Your task to perform on an android device: see sites visited before in the chrome app Image 0: 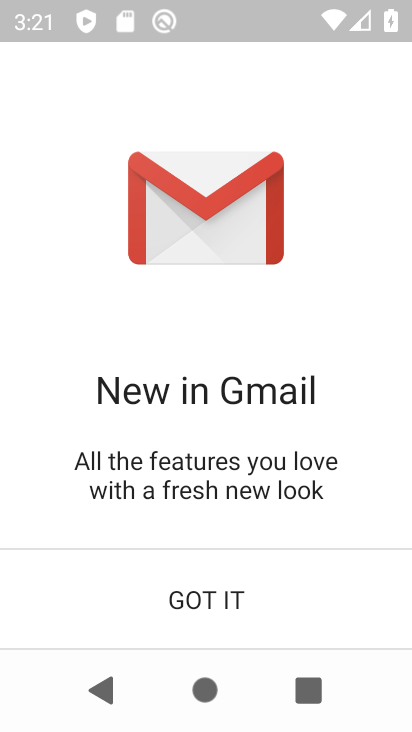
Step 0: press home button
Your task to perform on an android device: see sites visited before in the chrome app Image 1: 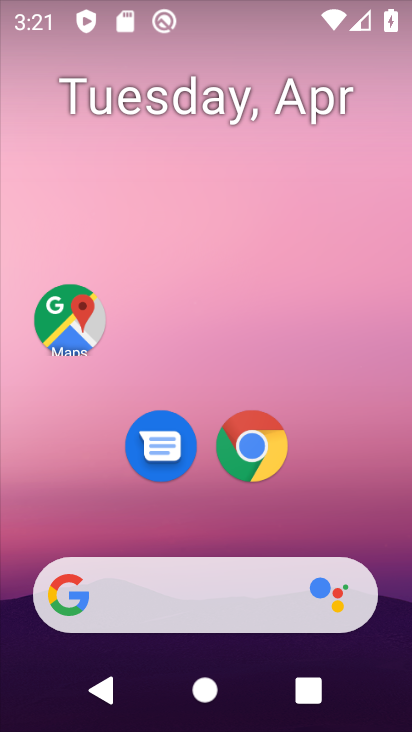
Step 1: drag from (272, 518) to (254, 35)
Your task to perform on an android device: see sites visited before in the chrome app Image 2: 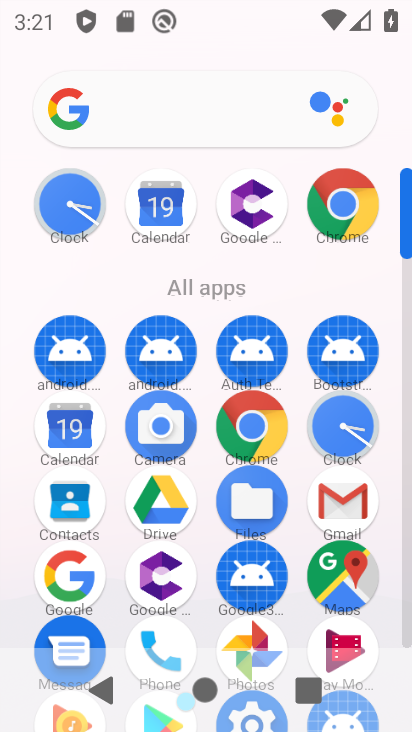
Step 2: click (250, 420)
Your task to perform on an android device: see sites visited before in the chrome app Image 3: 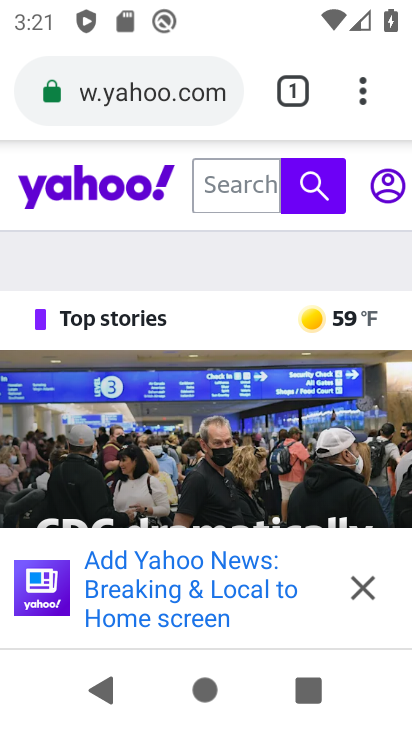
Step 3: drag from (359, 97) to (95, 468)
Your task to perform on an android device: see sites visited before in the chrome app Image 4: 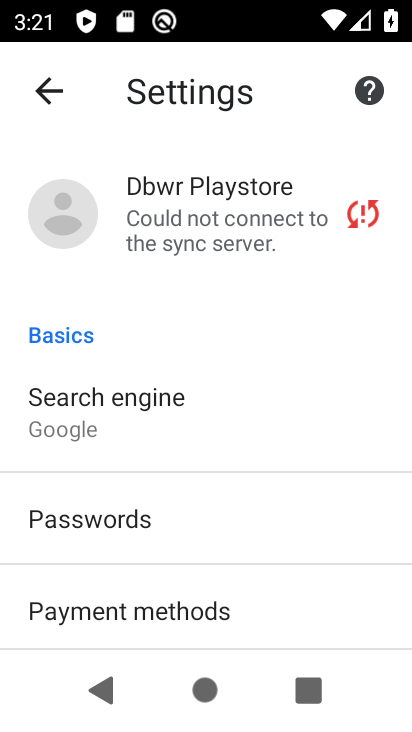
Step 4: drag from (271, 574) to (240, 329)
Your task to perform on an android device: see sites visited before in the chrome app Image 5: 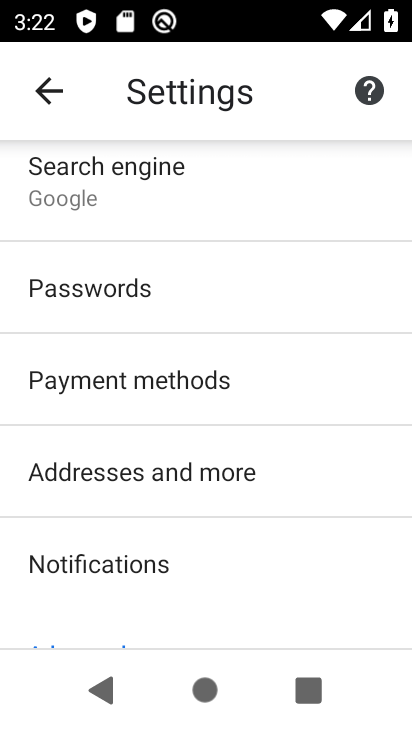
Step 5: drag from (321, 568) to (350, 293)
Your task to perform on an android device: see sites visited before in the chrome app Image 6: 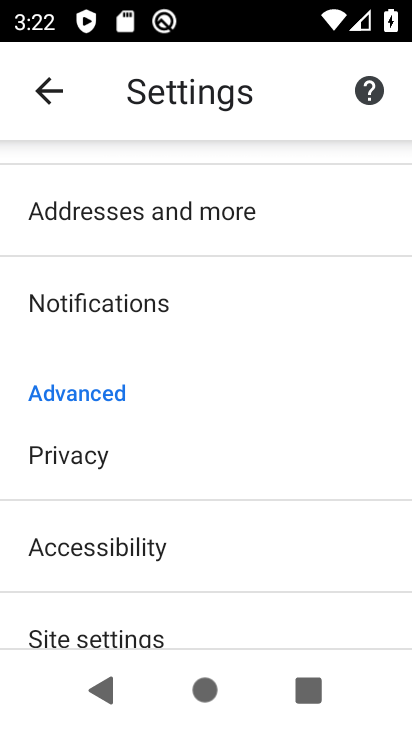
Step 6: click (123, 625)
Your task to perform on an android device: see sites visited before in the chrome app Image 7: 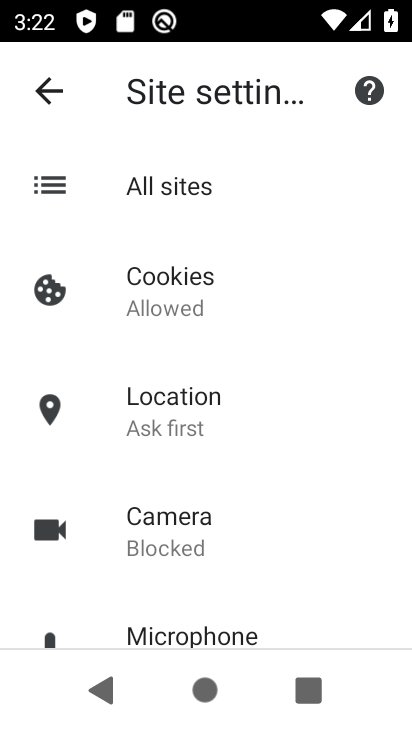
Step 7: click (200, 188)
Your task to perform on an android device: see sites visited before in the chrome app Image 8: 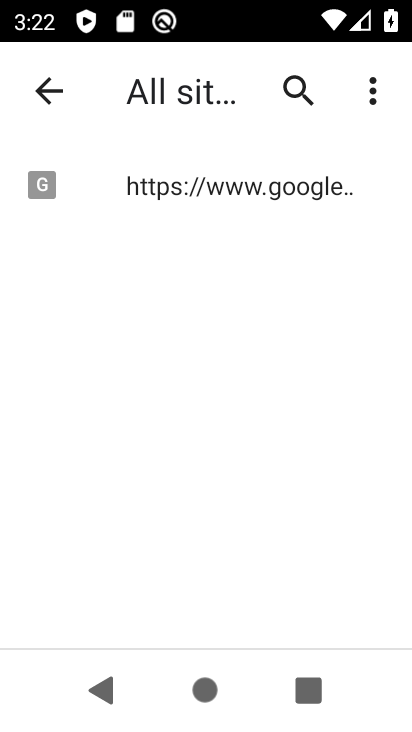
Step 8: click (239, 186)
Your task to perform on an android device: see sites visited before in the chrome app Image 9: 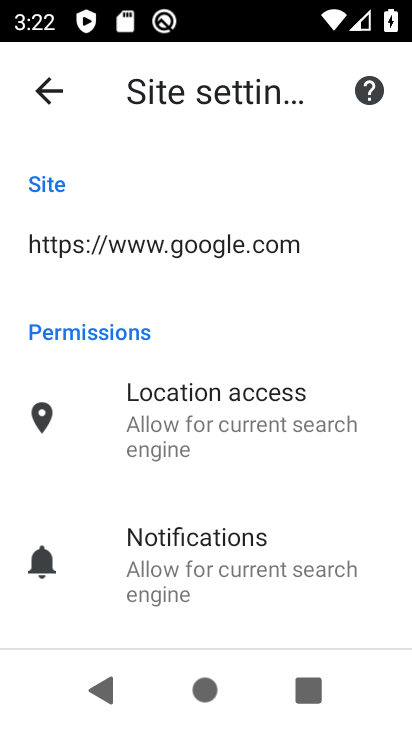
Step 9: task complete